Your task to perform on an android device: turn vacation reply on in the gmail app Image 0: 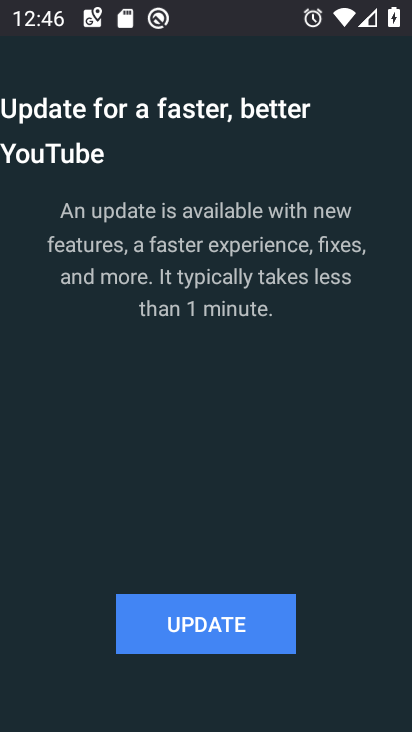
Step 0: press home button
Your task to perform on an android device: turn vacation reply on in the gmail app Image 1: 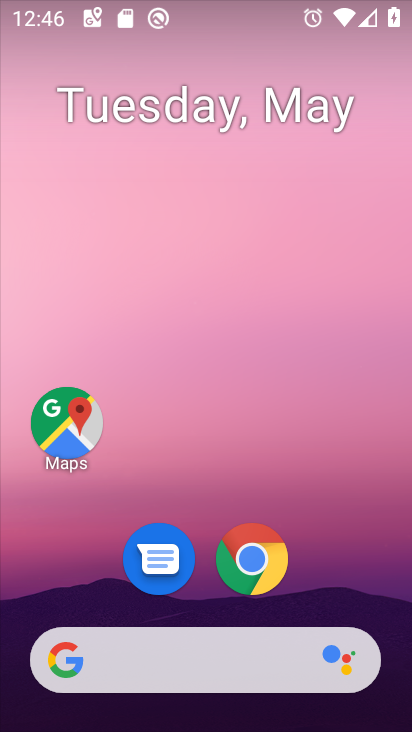
Step 1: drag from (336, 609) to (291, 184)
Your task to perform on an android device: turn vacation reply on in the gmail app Image 2: 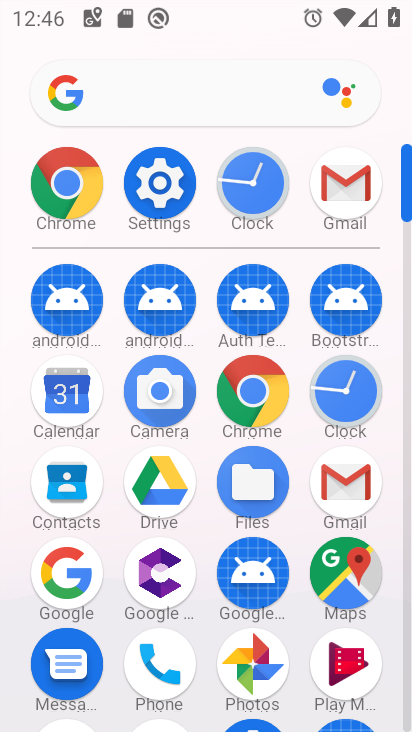
Step 2: click (352, 197)
Your task to perform on an android device: turn vacation reply on in the gmail app Image 3: 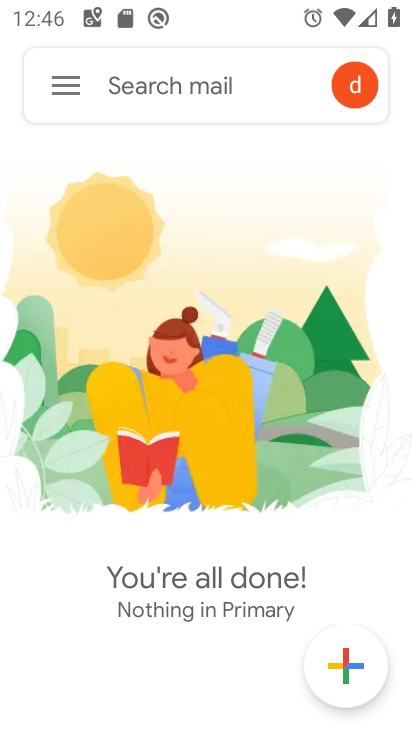
Step 3: click (65, 87)
Your task to perform on an android device: turn vacation reply on in the gmail app Image 4: 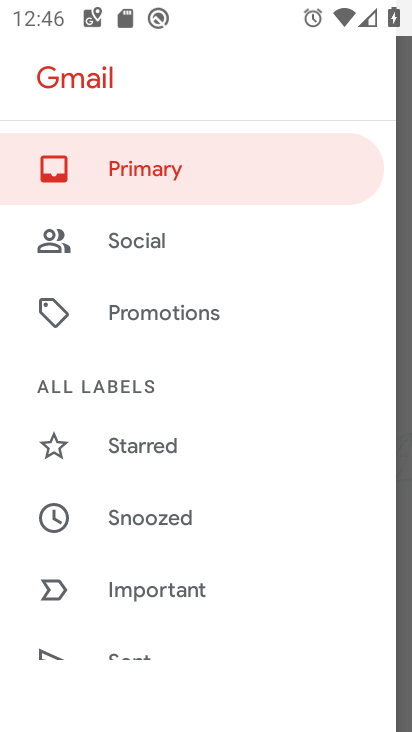
Step 4: drag from (270, 637) to (191, 150)
Your task to perform on an android device: turn vacation reply on in the gmail app Image 5: 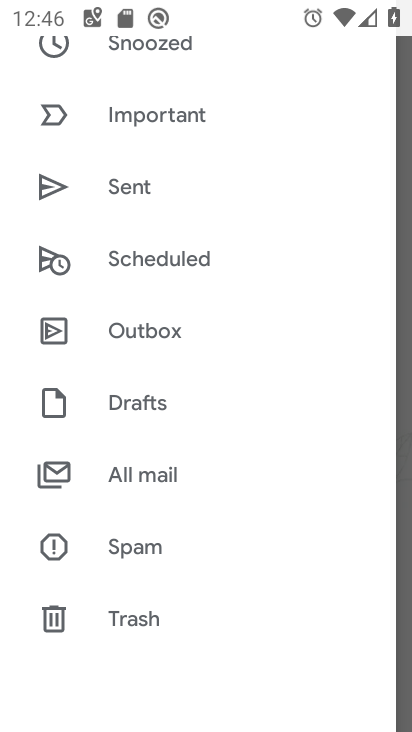
Step 5: drag from (260, 601) to (219, 70)
Your task to perform on an android device: turn vacation reply on in the gmail app Image 6: 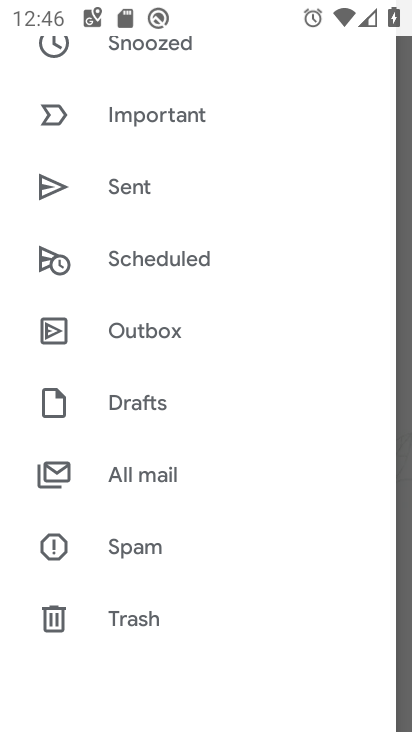
Step 6: drag from (161, 577) to (137, 99)
Your task to perform on an android device: turn vacation reply on in the gmail app Image 7: 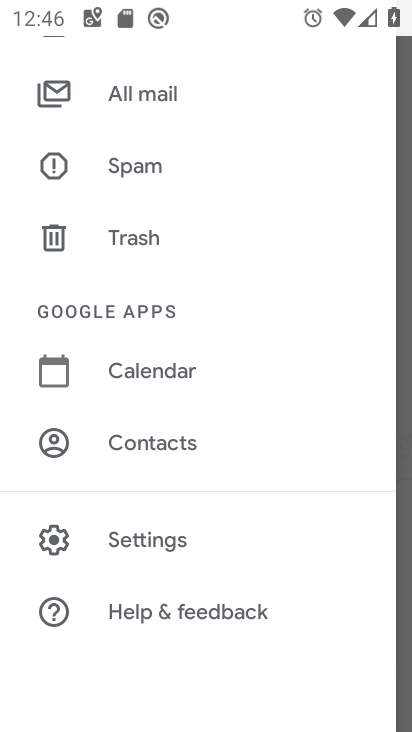
Step 7: click (180, 555)
Your task to perform on an android device: turn vacation reply on in the gmail app Image 8: 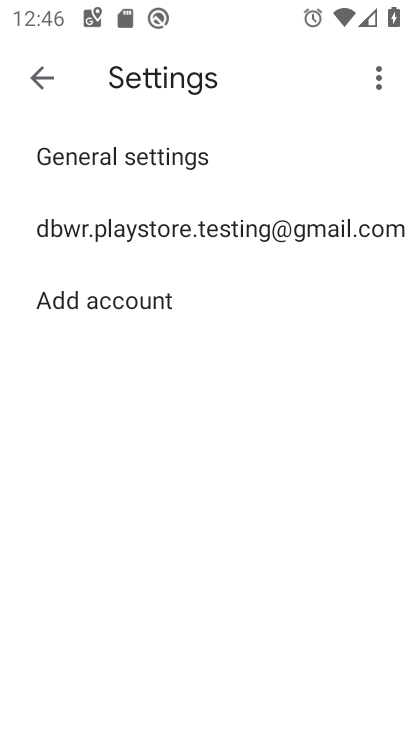
Step 8: click (176, 243)
Your task to perform on an android device: turn vacation reply on in the gmail app Image 9: 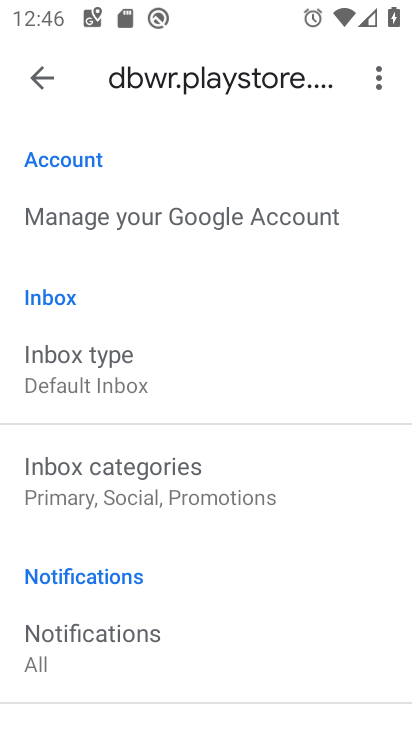
Step 9: drag from (233, 556) to (202, 135)
Your task to perform on an android device: turn vacation reply on in the gmail app Image 10: 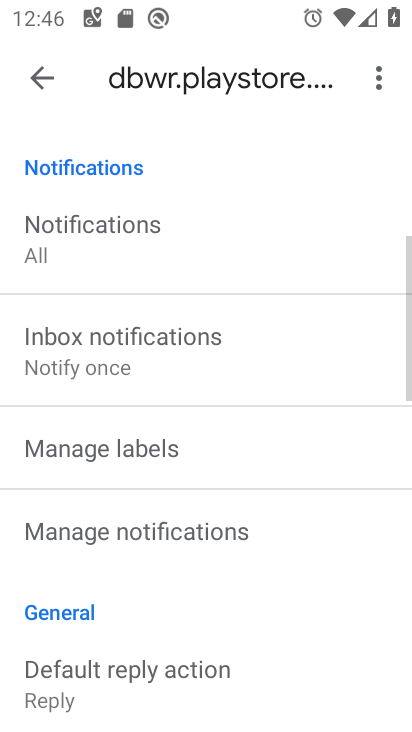
Step 10: drag from (133, 313) to (138, 170)
Your task to perform on an android device: turn vacation reply on in the gmail app Image 11: 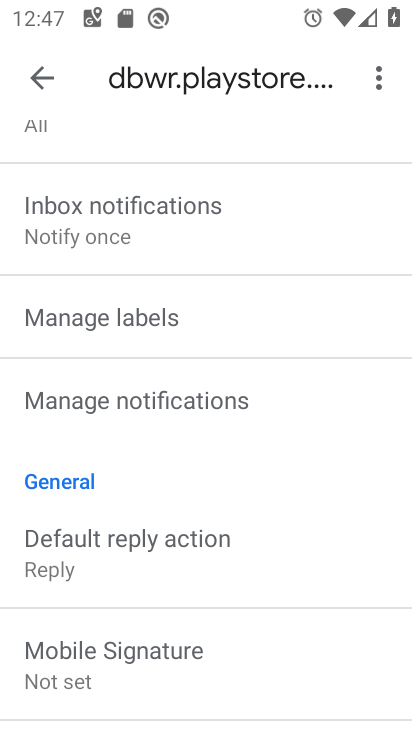
Step 11: drag from (148, 607) to (120, 86)
Your task to perform on an android device: turn vacation reply on in the gmail app Image 12: 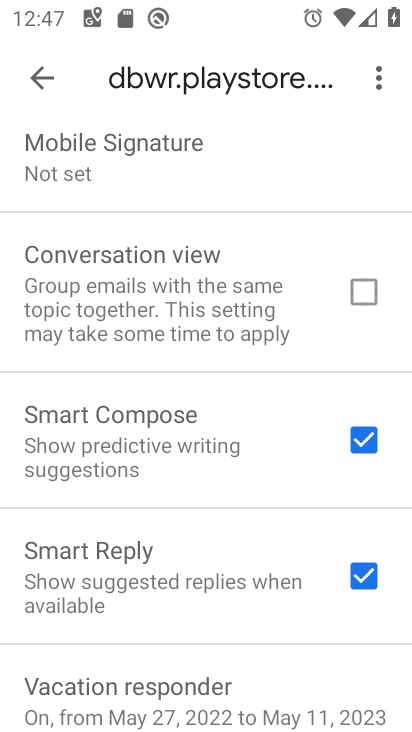
Step 12: drag from (186, 646) to (177, 211)
Your task to perform on an android device: turn vacation reply on in the gmail app Image 13: 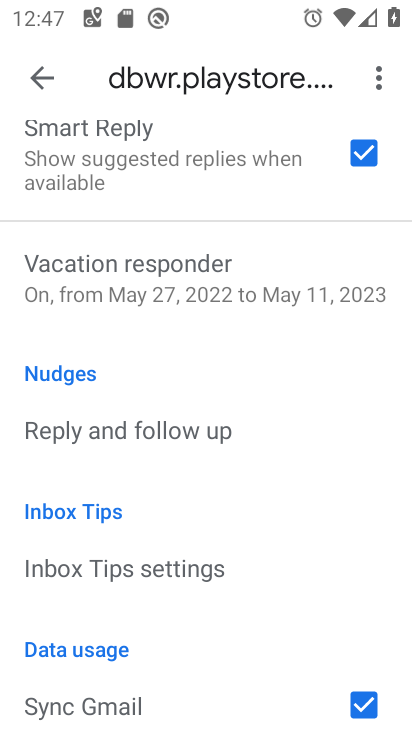
Step 13: click (196, 262)
Your task to perform on an android device: turn vacation reply on in the gmail app Image 14: 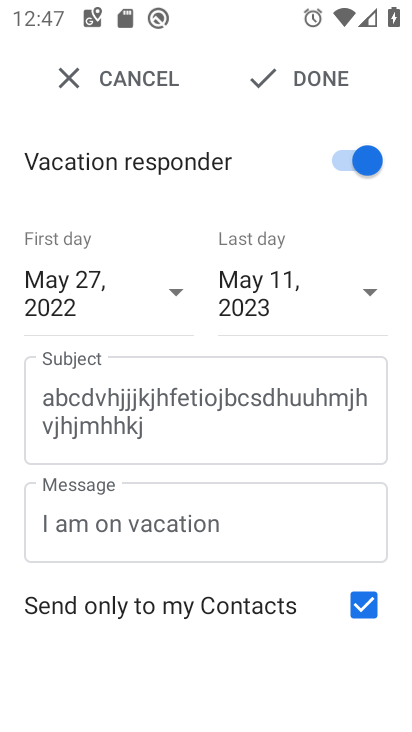
Step 14: click (310, 78)
Your task to perform on an android device: turn vacation reply on in the gmail app Image 15: 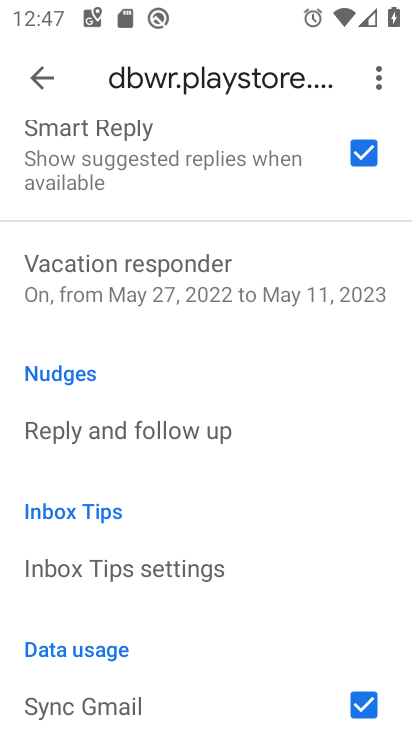
Step 15: task complete